Your task to perform on an android device: open app "eBay: The shopping marketplace" Image 0: 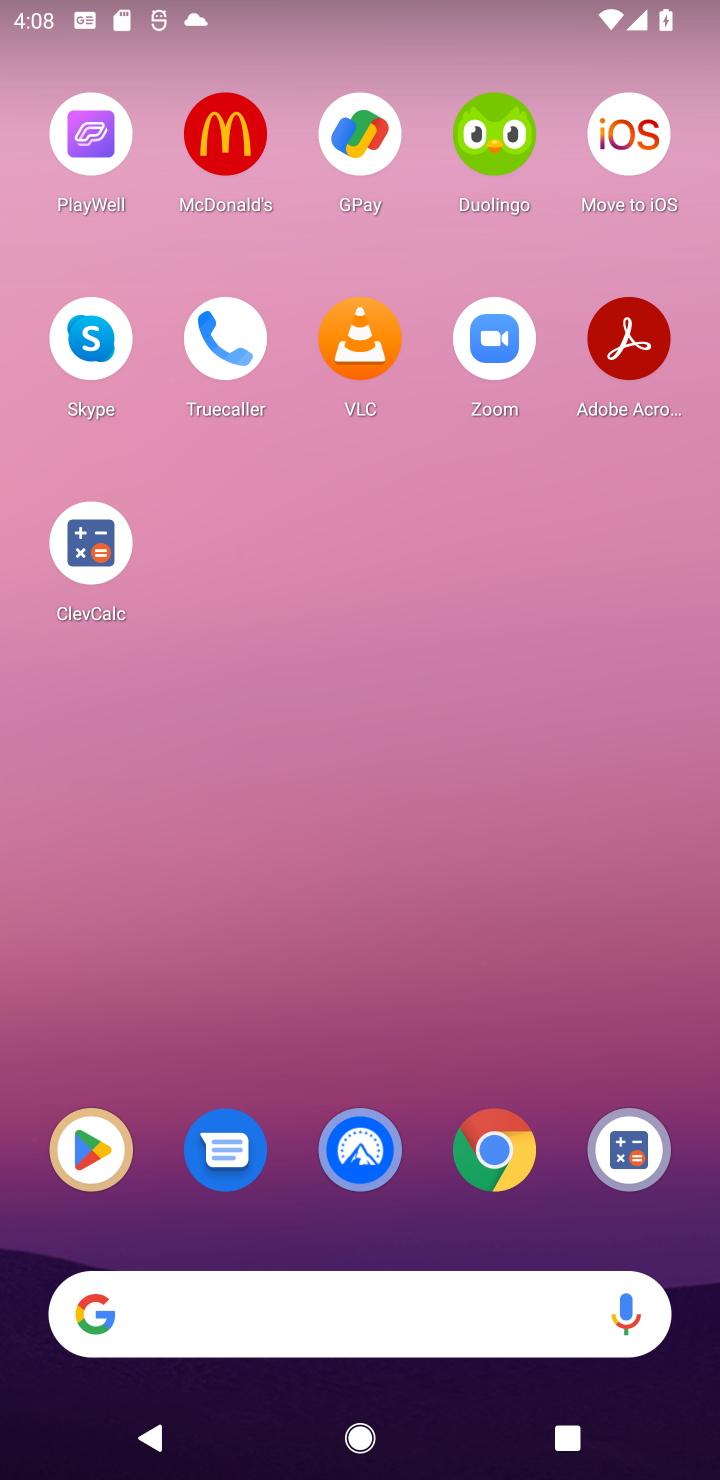
Step 0: click (104, 1185)
Your task to perform on an android device: open app "eBay: The shopping marketplace" Image 1: 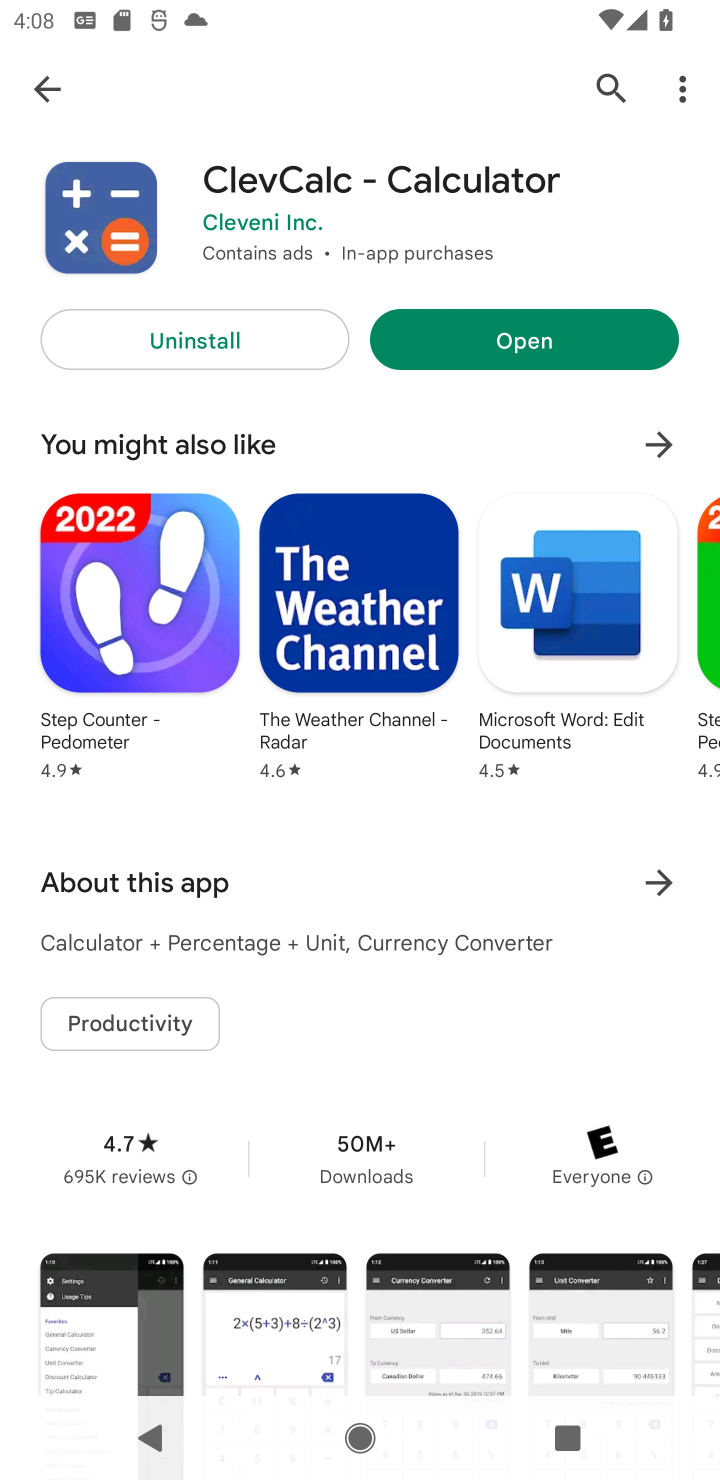
Step 1: type "ebay"
Your task to perform on an android device: open app "eBay: The shopping marketplace" Image 2: 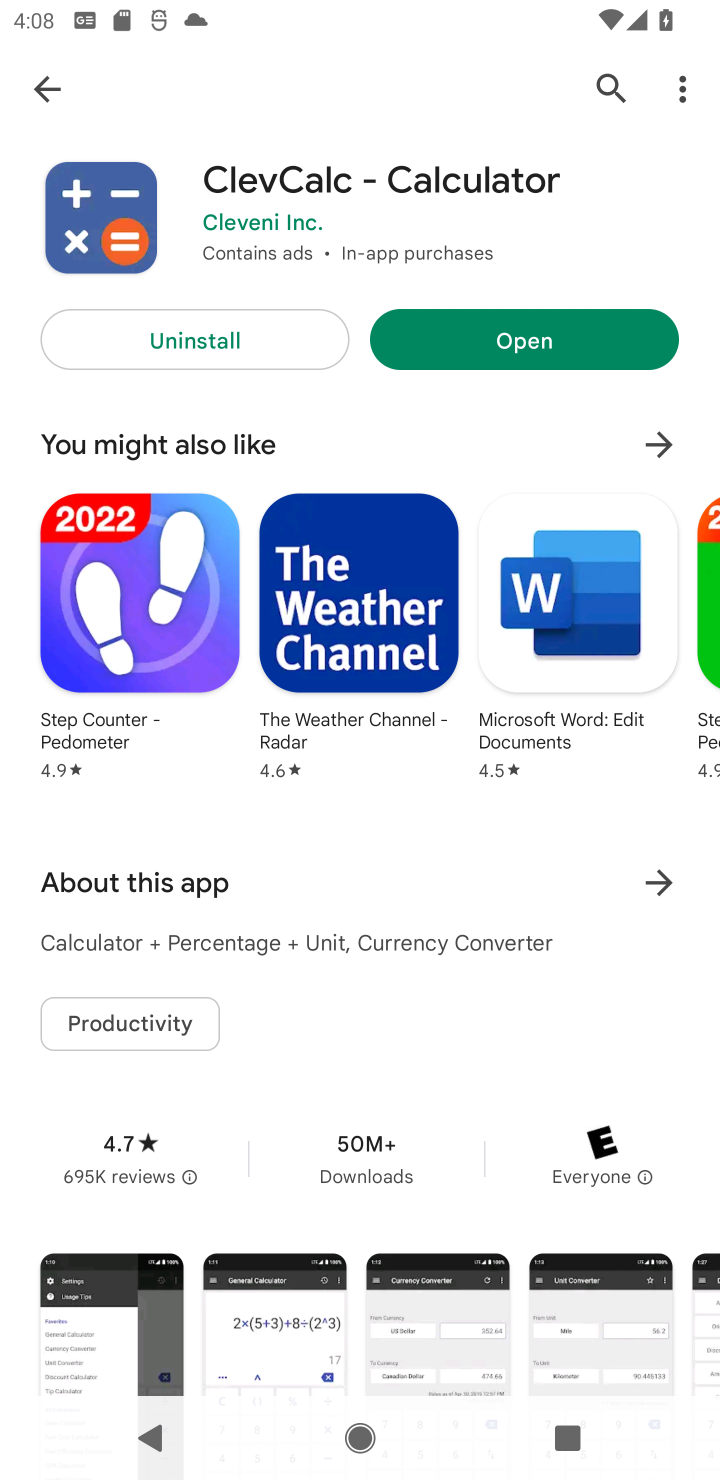
Step 2: click (93, 1162)
Your task to perform on an android device: open app "eBay: The shopping marketplace" Image 3: 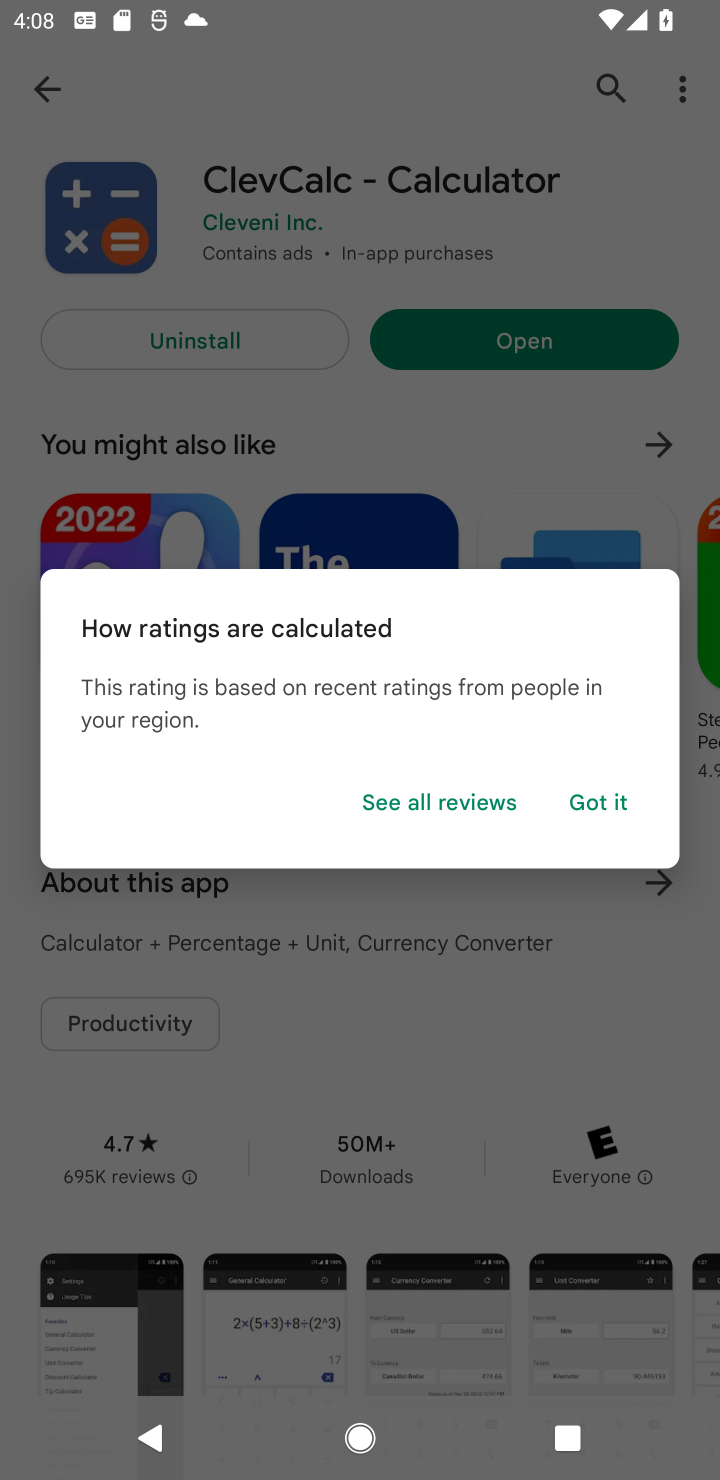
Step 3: click (604, 821)
Your task to perform on an android device: open app "eBay: The shopping marketplace" Image 4: 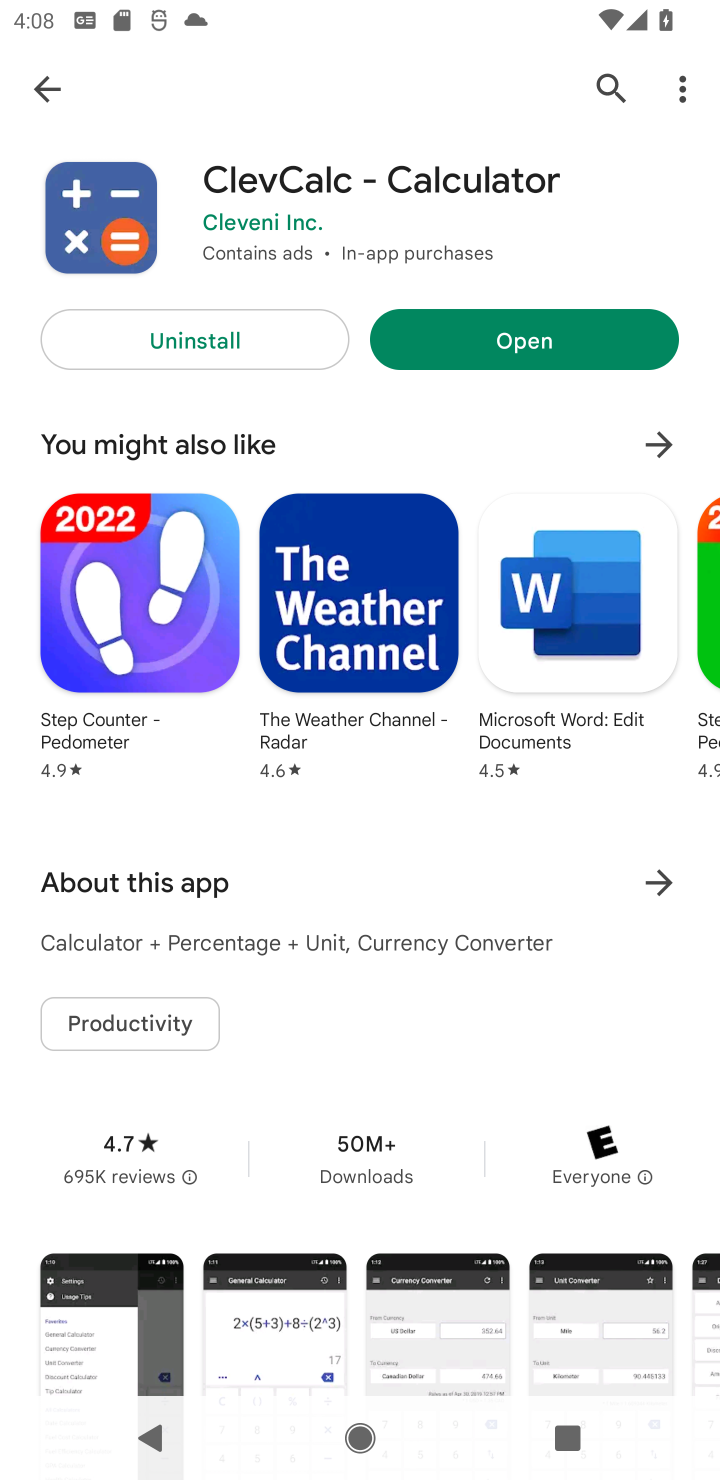
Step 4: click (588, 108)
Your task to perform on an android device: open app "eBay: The shopping marketplace" Image 5: 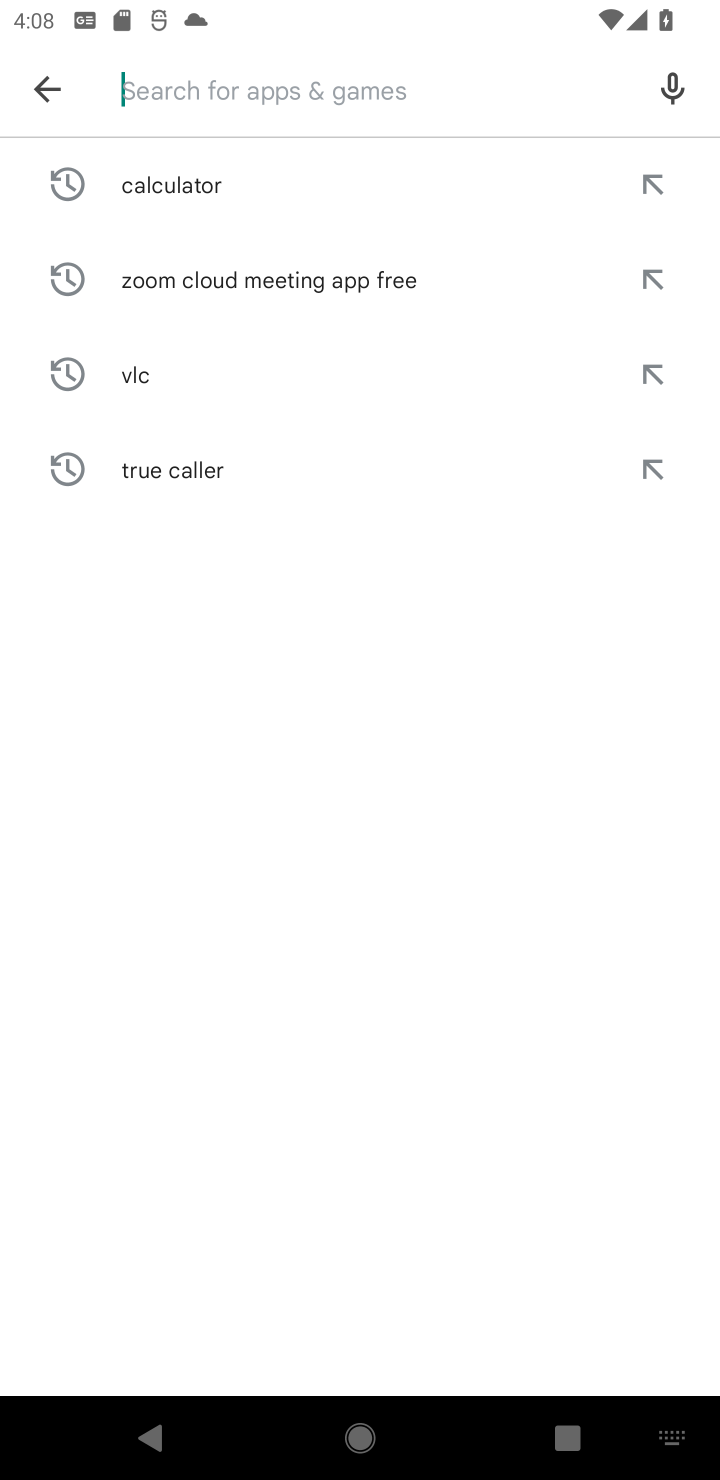
Step 5: type "ebay"
Your task to perform on an android device: open app "eBay: The shopping marketplace" Image 6: 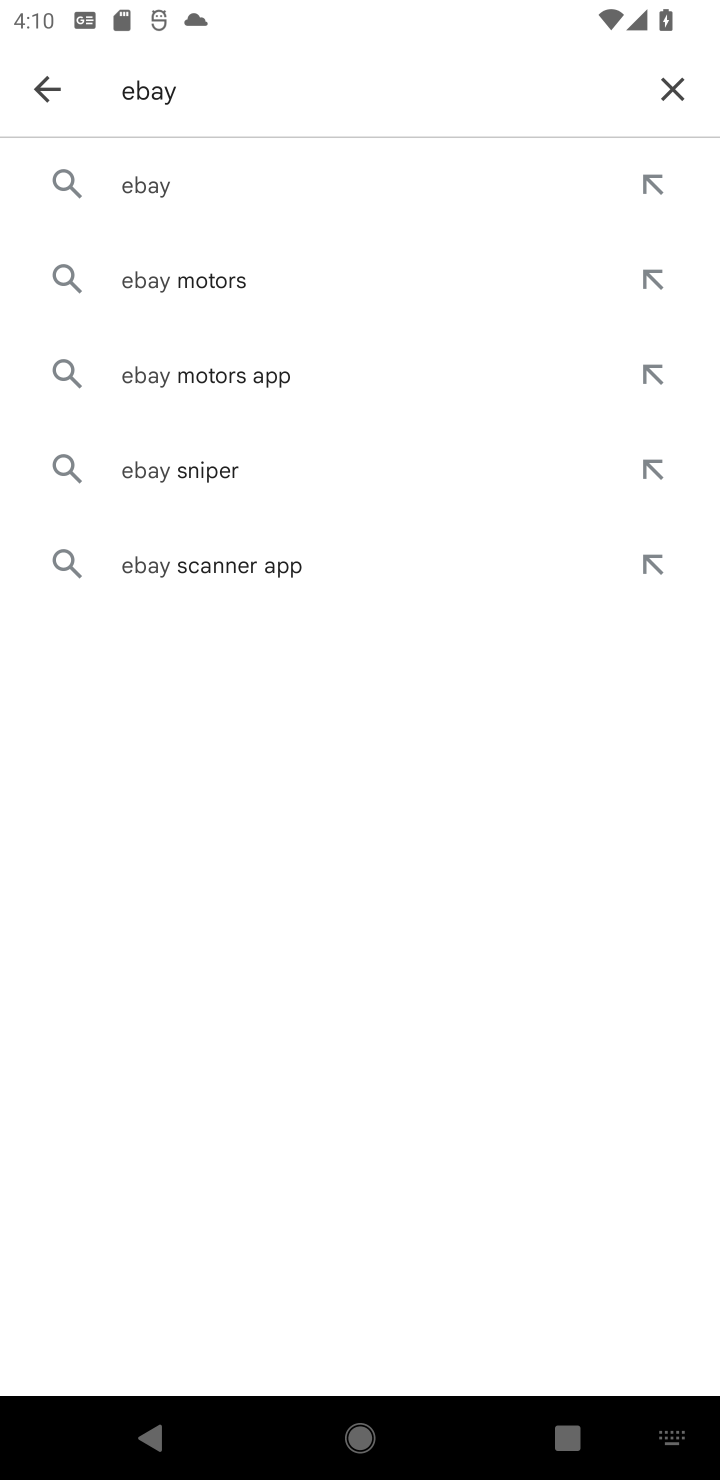
Step 6: click (199, 198)
Your task to perform on an android device: open app "eBay: The shopping marketplace" Image 7: 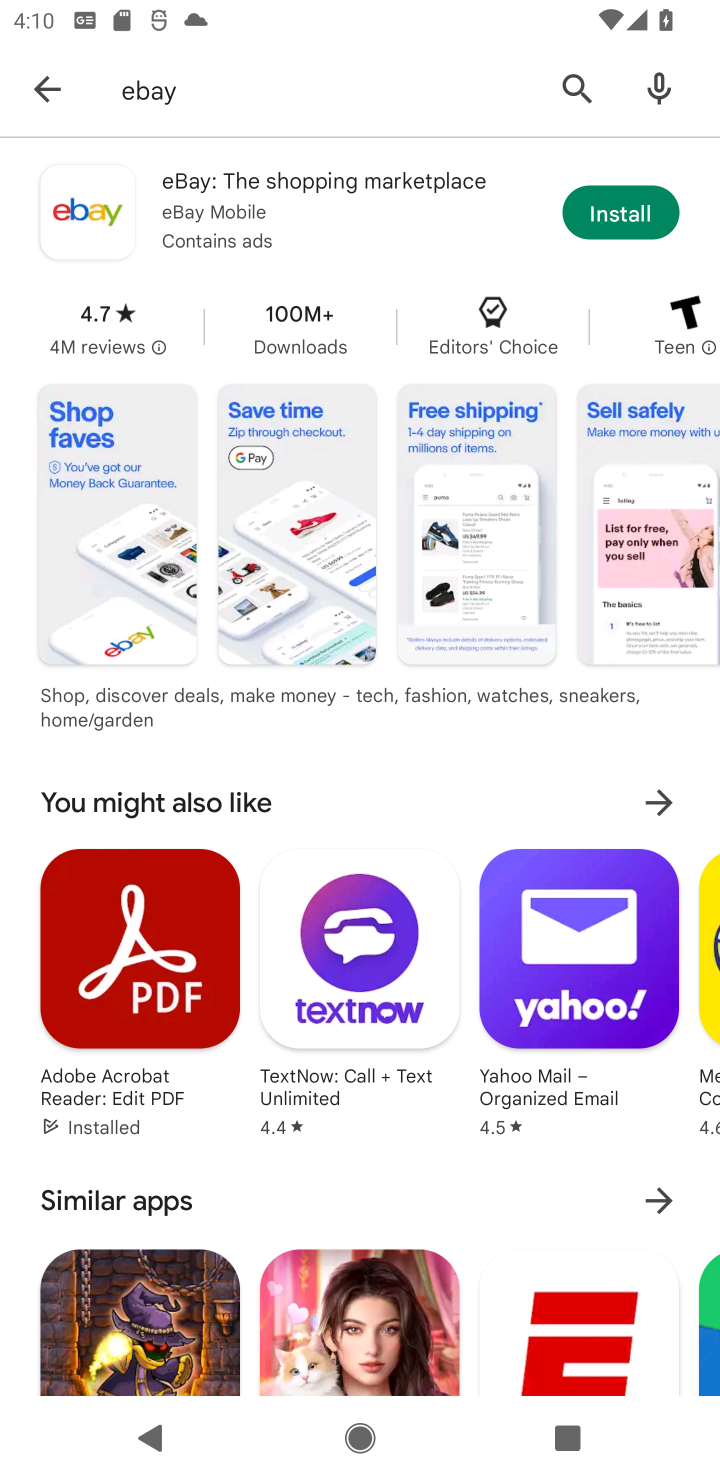
Step 7: click (635, 232)
Your task to perform on an android device: open app "eBay: The shopping marketplace" Image 8: 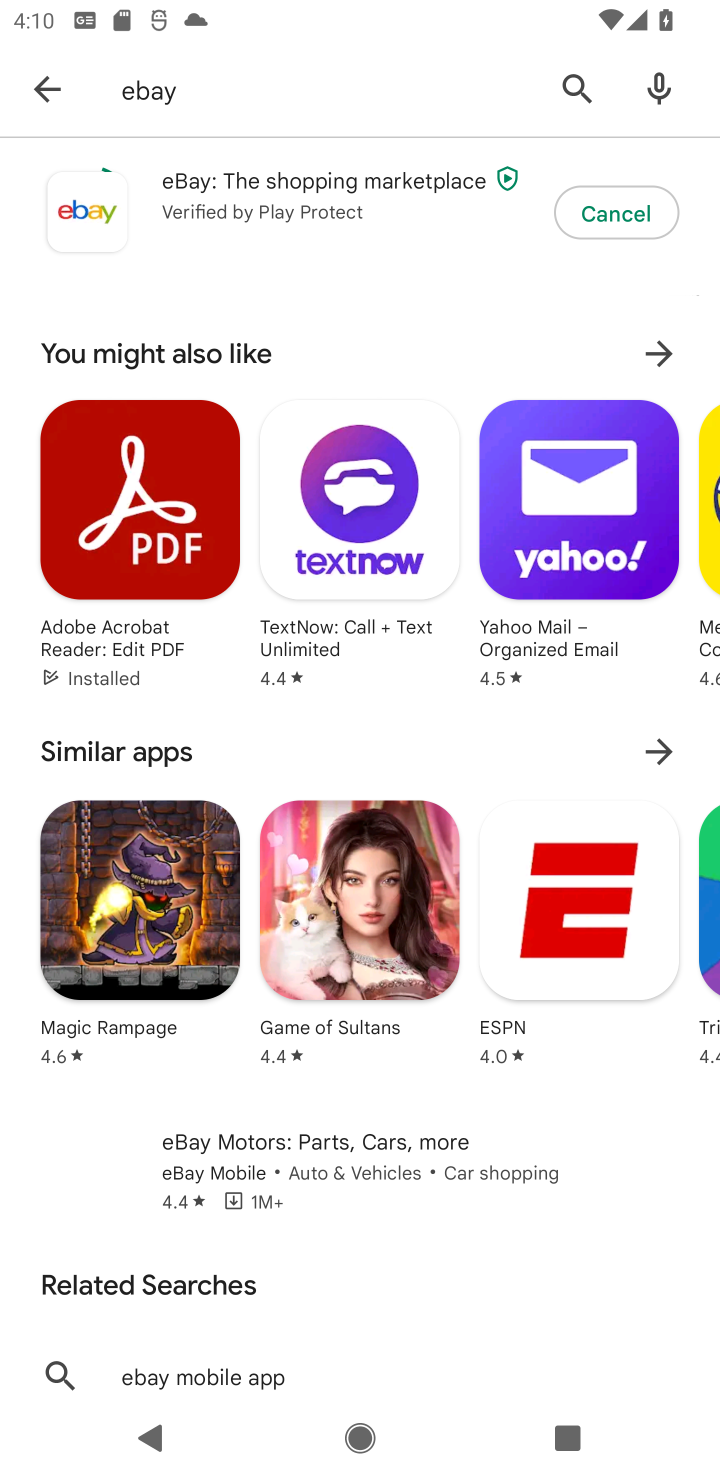
Step 8: task complete